Your task to perform on an android device: set the stopwatch Image 0: 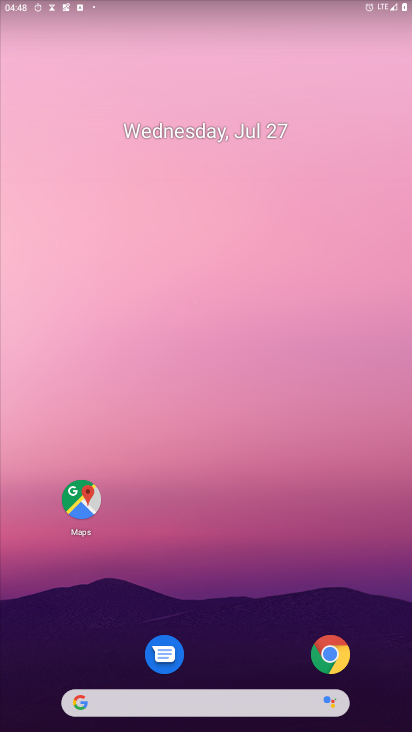
Step 0: drag from (212, 697) to (351, 48)
Your task to perform on an android device: set the stopwatch Image 1: 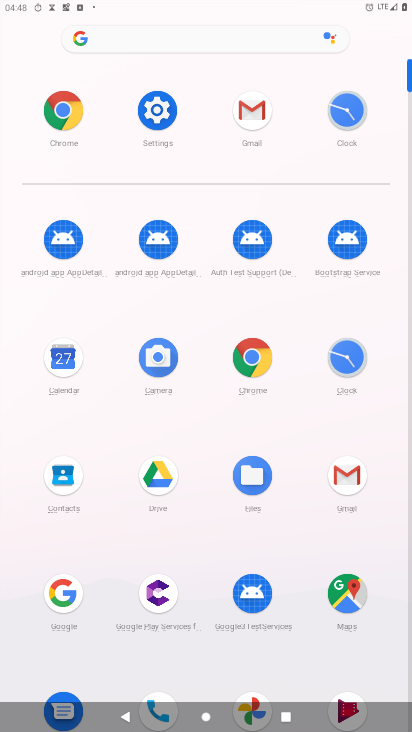
Step 1: click (350, 354)
Your task to perform on an android device: set the stopwatch Image 2: 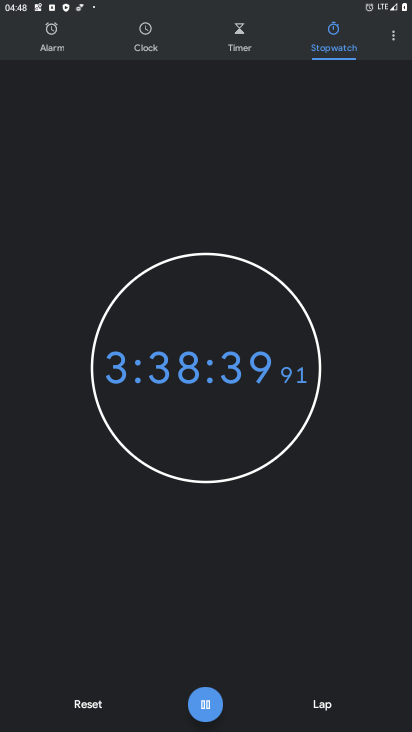
Step 2: task complete